Your task to perform on an android device: open wifi settings Image 0: 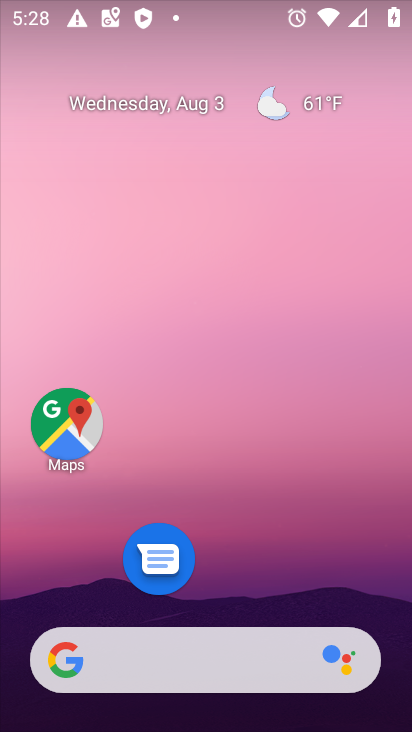
Step 0: drag from (214, 629) to (214, 187)
Your task to perform on an android device: open wifi settings Image 1: 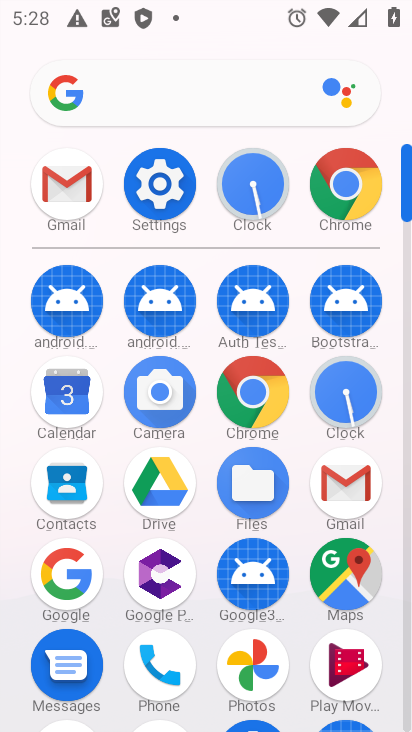
Step 1: click (150, 178)
Your task to perform on an android device: open wifi settings Image 2: 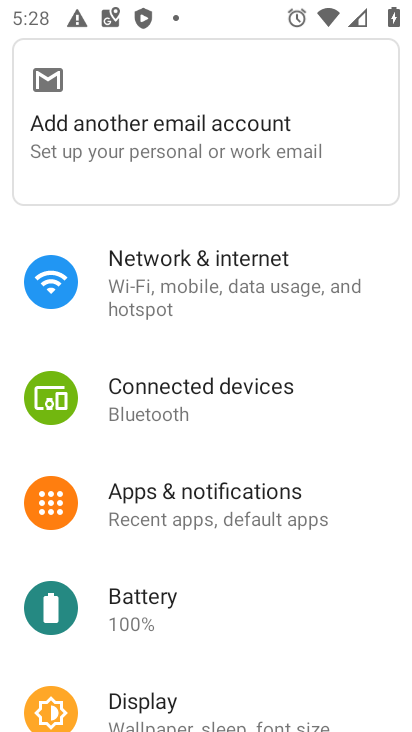
Step 2: click (270, 274)
Your task to perform on an android device: open wifi settings Image 3: 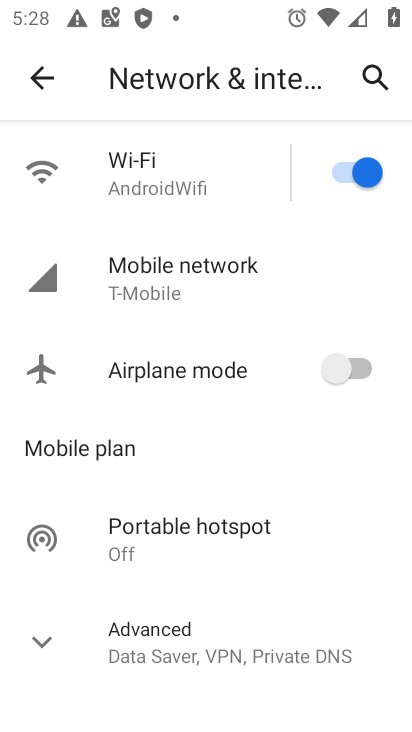
Step 3: click (148, 172)
Your task to perform on an android device: open wifi settings Image 4: 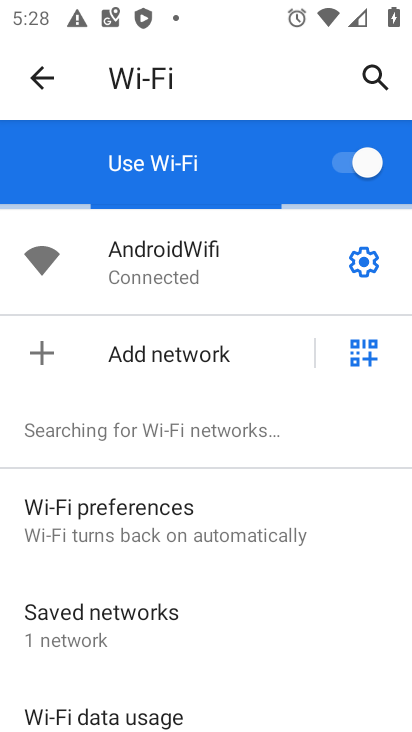
Step 4: click (377, 260)
Your task to perform on an android device: open wifi settings Image 5: 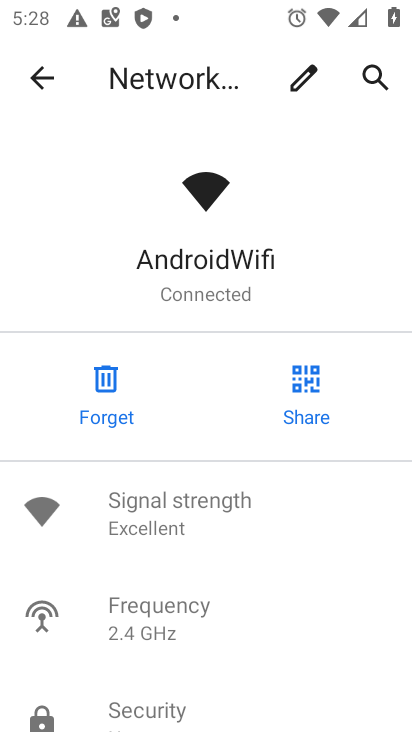
Step 5: task complete